Your task to perform on an android device: turn on wifi Image 0: 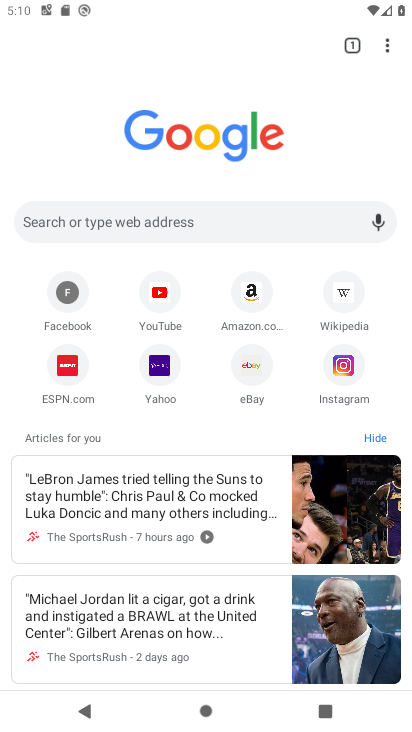
Step 0: press home button
Your task to perform on an android device: turn on wifi Image 1: 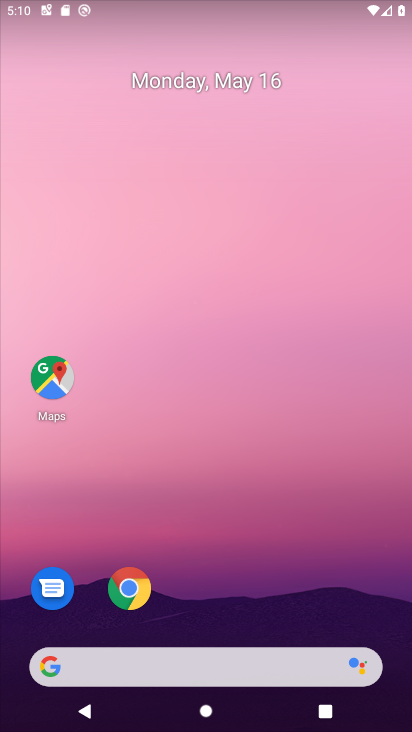
Step 1: drag from (262, 527) to (199, 84)
Your task to perform on an android device: turn on wifi Image 2: 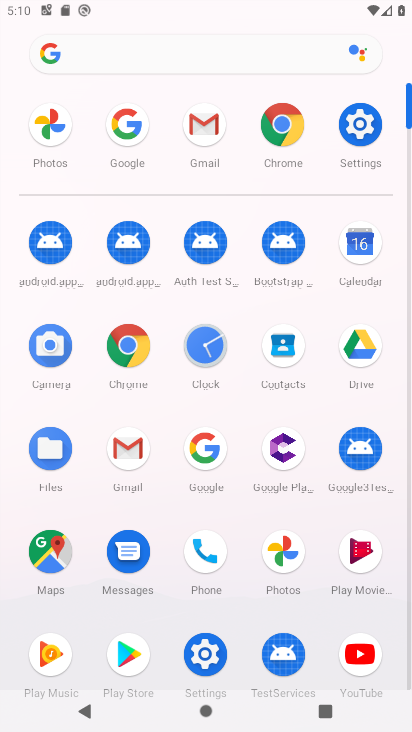
Step 2: click (373, 115)
Your task to perform on an android device: turn on wifi Image 3: 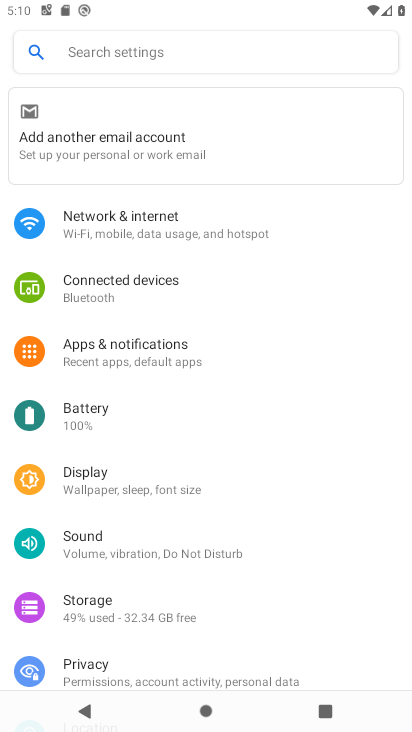
Step 3: click (214, 222)
Your task to perform on an android device: turn on wifi Image 4: 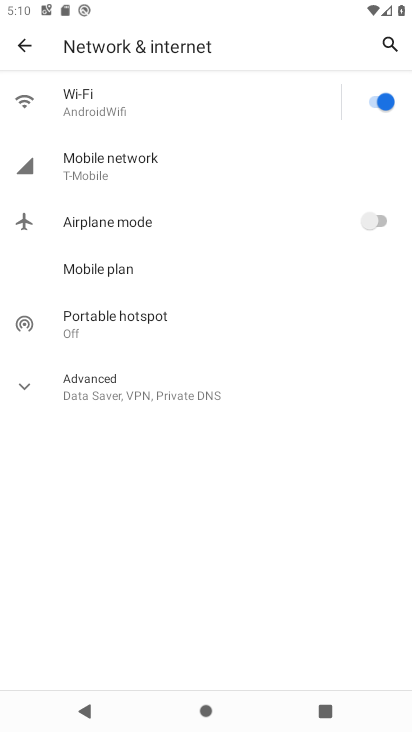
Step 4: task complete